Your task to perform on an android device: Search for sushi restaurants on Maps Image 0: 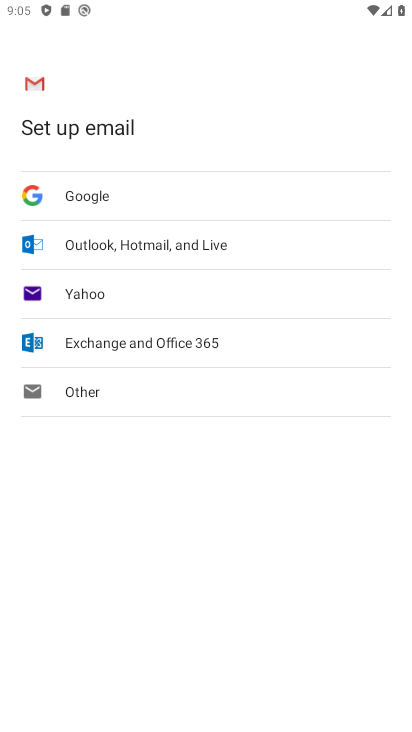
Step 0: press home button
Your task to perform on an android device: Search for sushi restaurants on Maps Image 1: 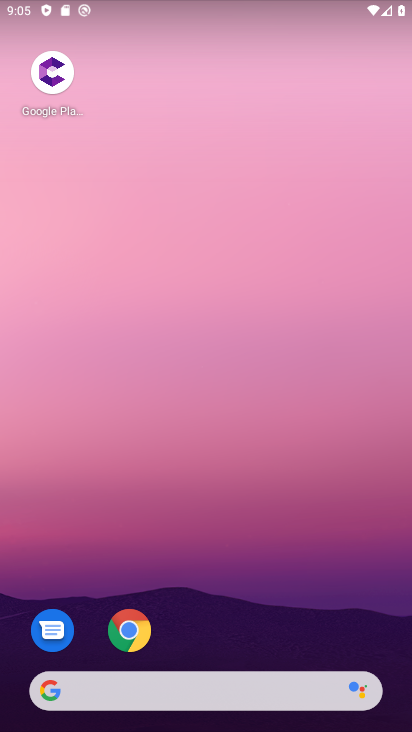
Step 1: drag from (239, 654) to (345, 78)
Your task to perform on an android device: Search for sushi restaurants on Maps Image 2: 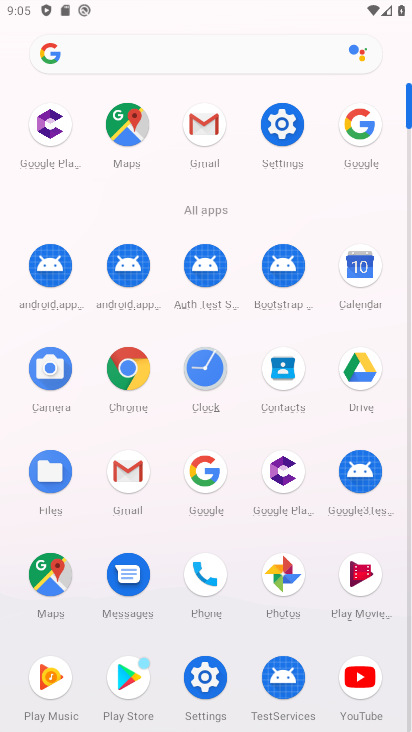
Step 2: click (69, 570)
Your task to perform on an android device: Search for sushi restaurants on Maps Image 3: 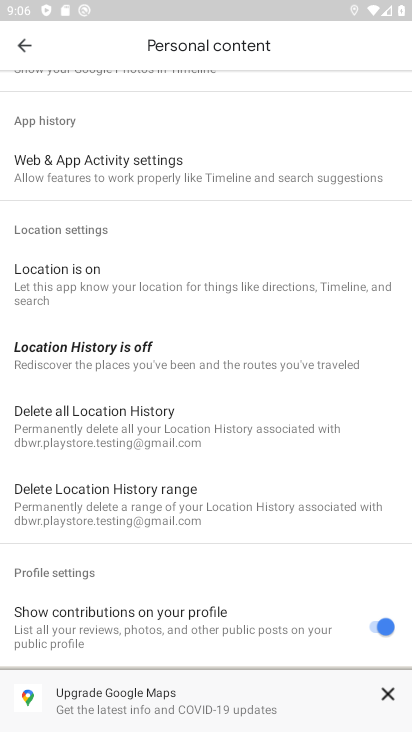
Step 3: click (15, 58)
Your task to perform on an android device: Search for sushi restaurants on Maps Image 4: 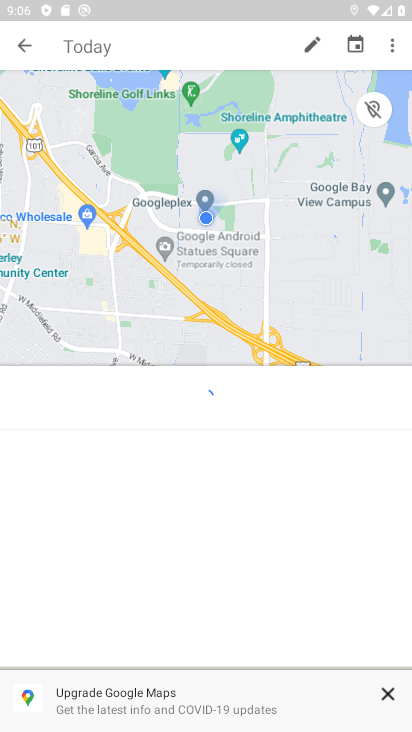
Step 4: click (15, 58)
Your task to perform on an android device: Search for sushi restaurants on Maps Image 5: 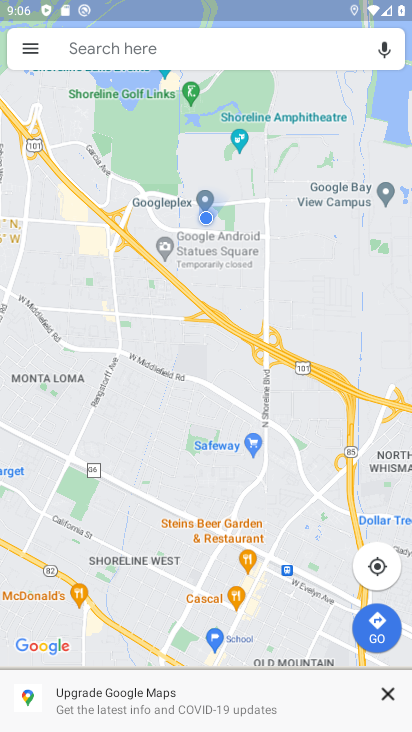
Step 5: click (91, 43)
Your task to perform on an android device: Search for sushi restaurants on Maps Image 6: 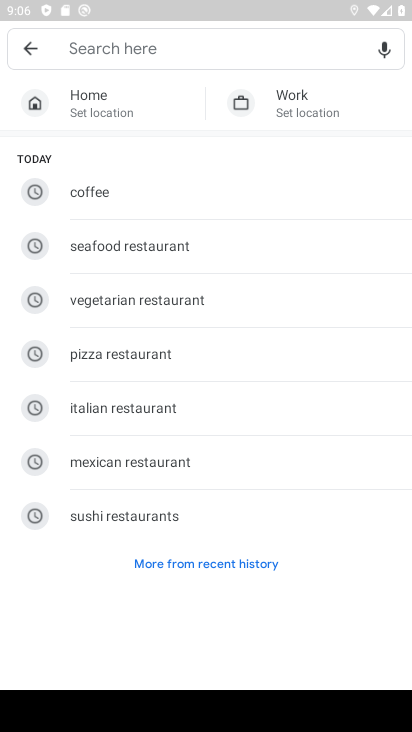
Step 6: type " sushi restaurants"
Your task to perform on an android device: Search for sushi restaurants on Maps Image 7: 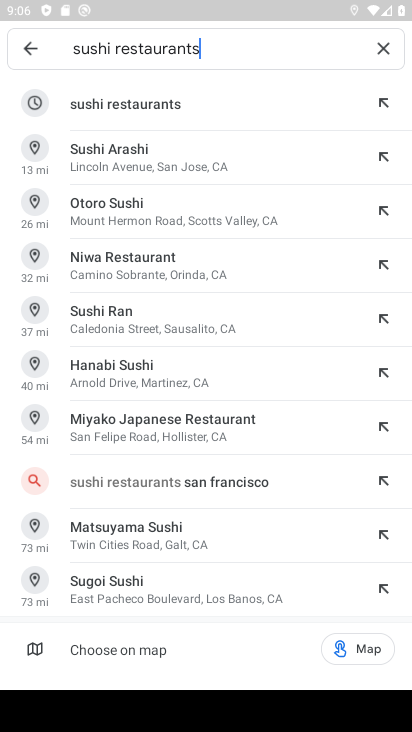
Step 7: click (108, 103)
Your task to perform on an android device: Search for sushi restaurants on Maps Image 8: 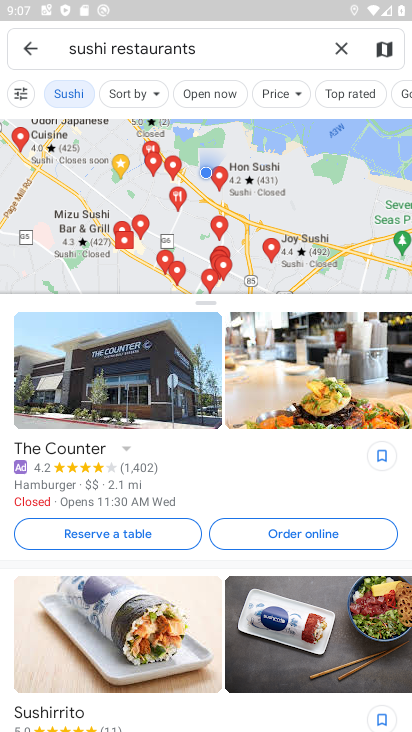
Step 8: task complete